Your task to perform on an android device: toggle airplane mode Image 0: 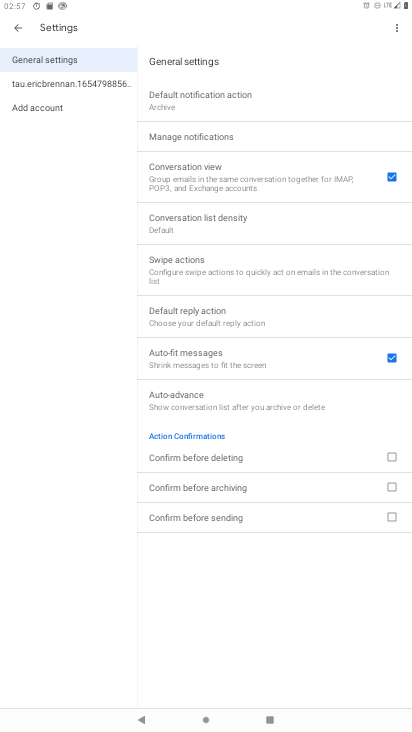
Step 0: press home button
Your task to perform on an android device: toggle airplane mode Image 1: 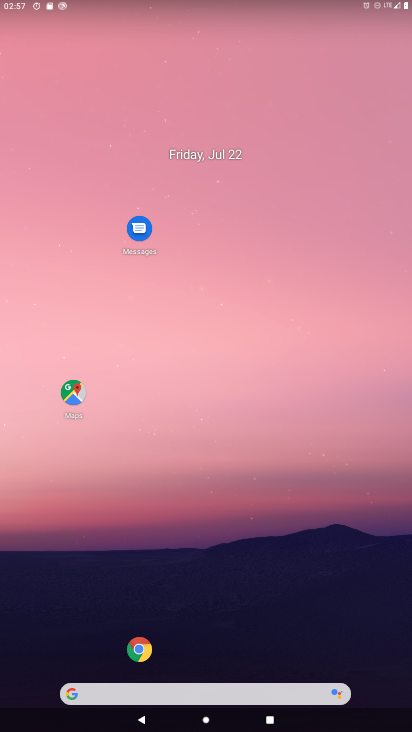
Step 1: drag from (32, 680) to (206, 163)
Your task to perform on an android device: toggle airplane mode Image 2: 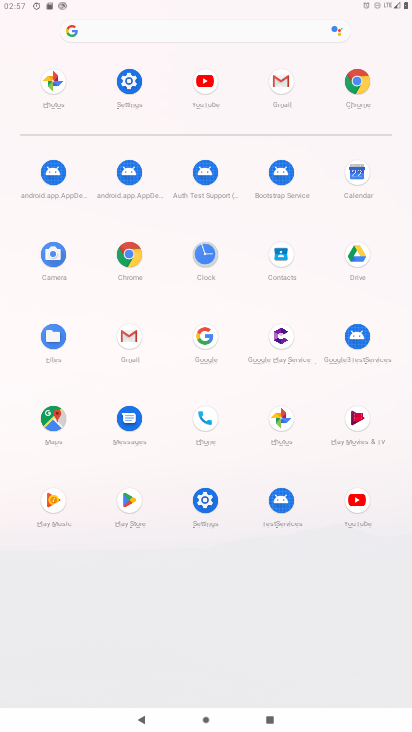
Step 2: click (204, 497)
Your task to perform on an android device: toggle airplane mode Image 3: 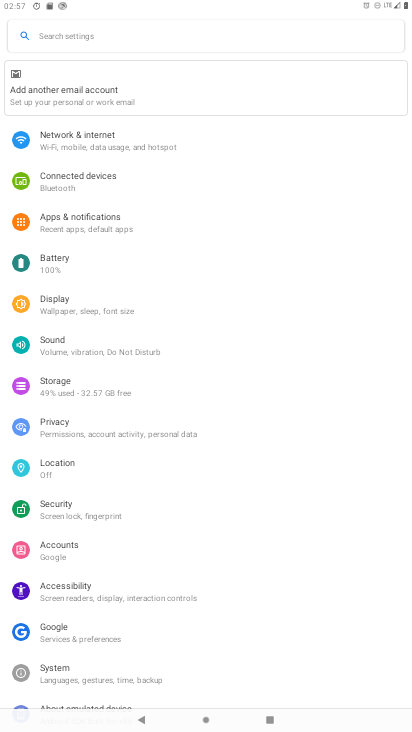
Step 3: click (112, 143)
Your task to perform on an android device: toggle airplane mode Image 4: 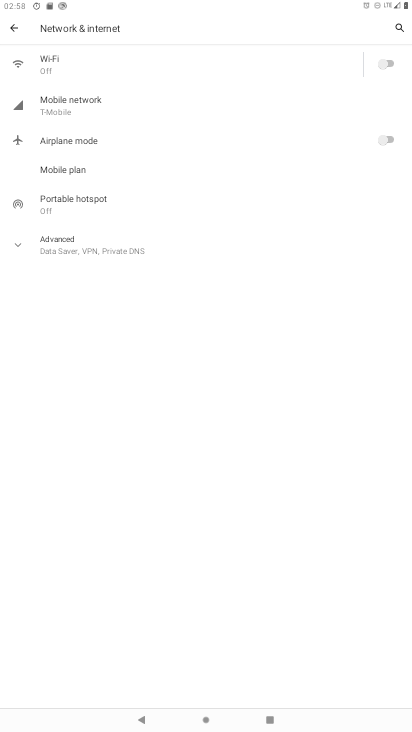
Step 4: click (382, 140)
Your task to perform on an android device: toggle airplane mode Image 5: 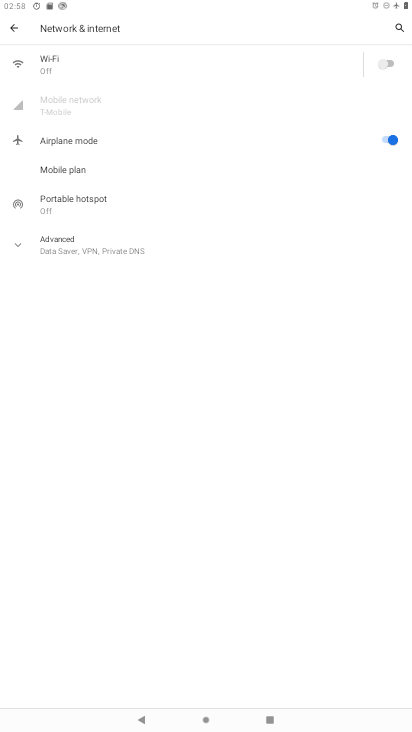
Step 5: task complete